Your task to perform on an android device: check the backup settings in the google photos Image 0: 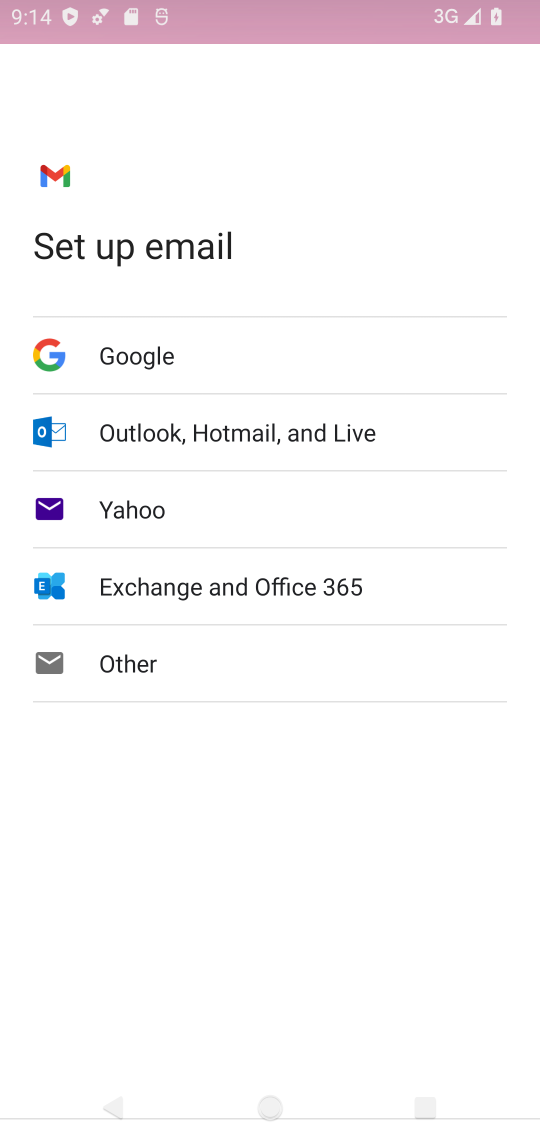
Step 0: press home button
Your task to perform on an android device: check the backup settings in the google photos Image 1: 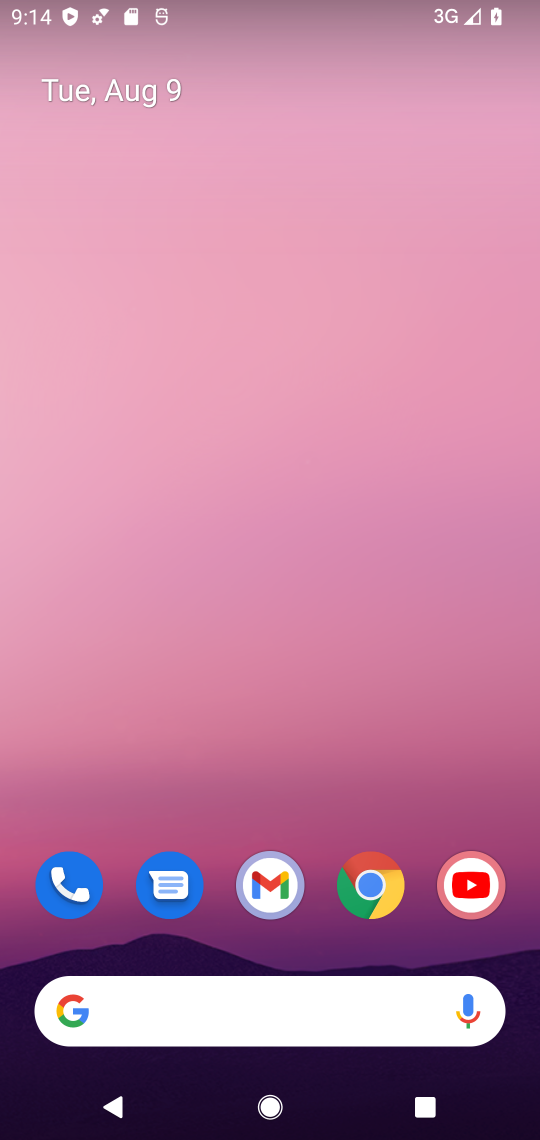
Step 1: drag from (310, 829) to (297, 60)
Your task to perform on an android device: check the backup settings in the google photos Image 2: 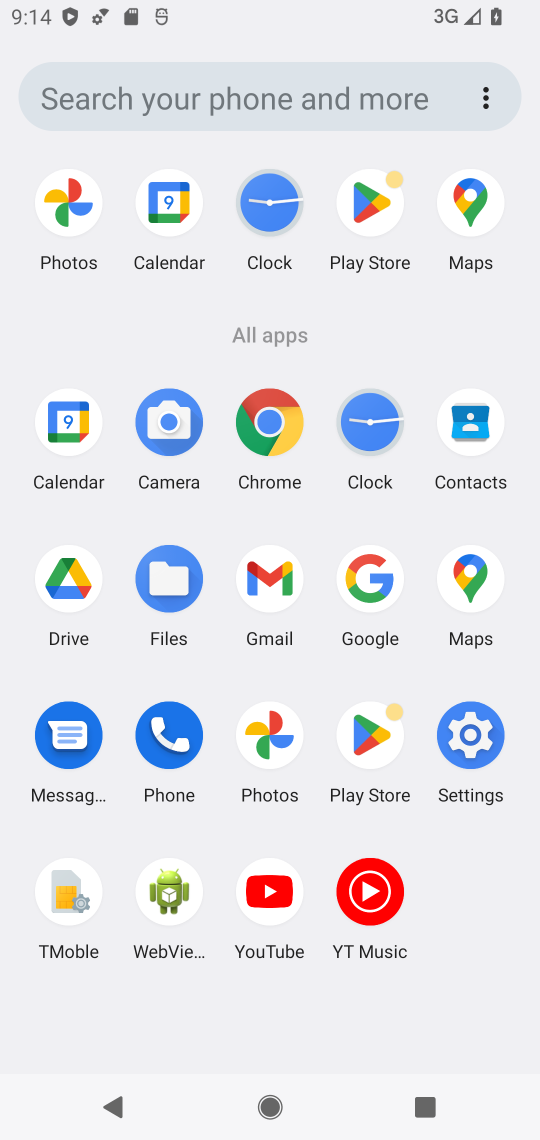
Step 2: click (75, 185)
Your task to perform on an android device: check the backup settings in the google photos Image 3: 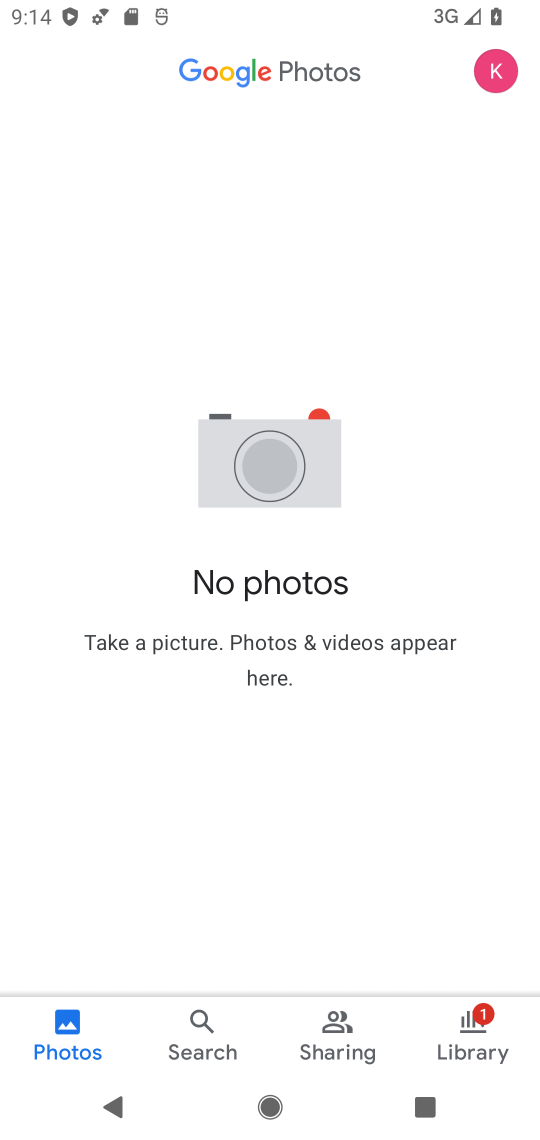
Step 3: click (496, 70)
Your task to perform on an android device: check the backup settings in the google photos Image 4: 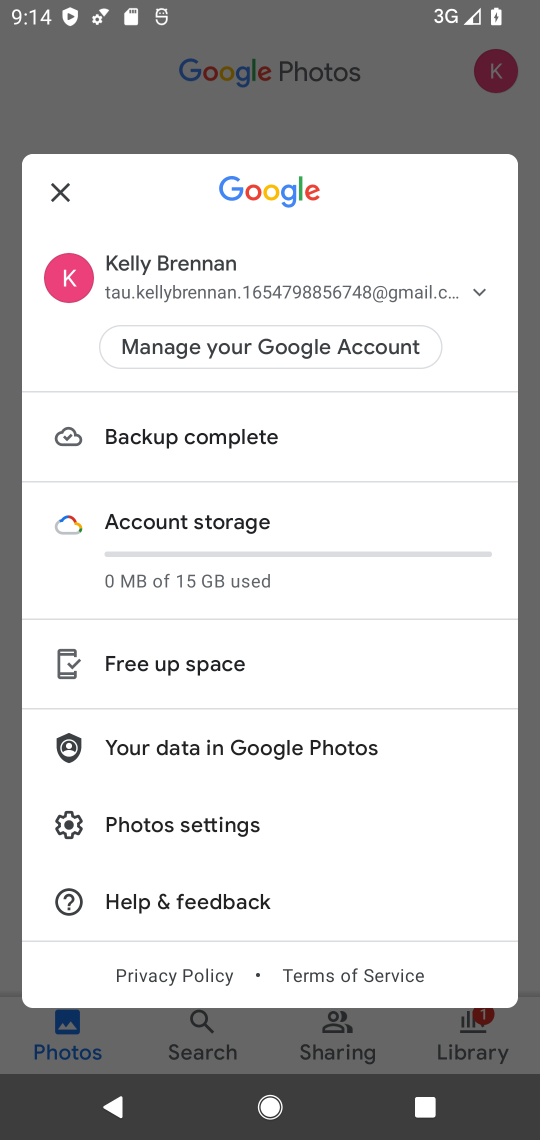
Step 4: click (246, 439)
Your task to perform on an android device: check the backup settings in the google photos Image 5: 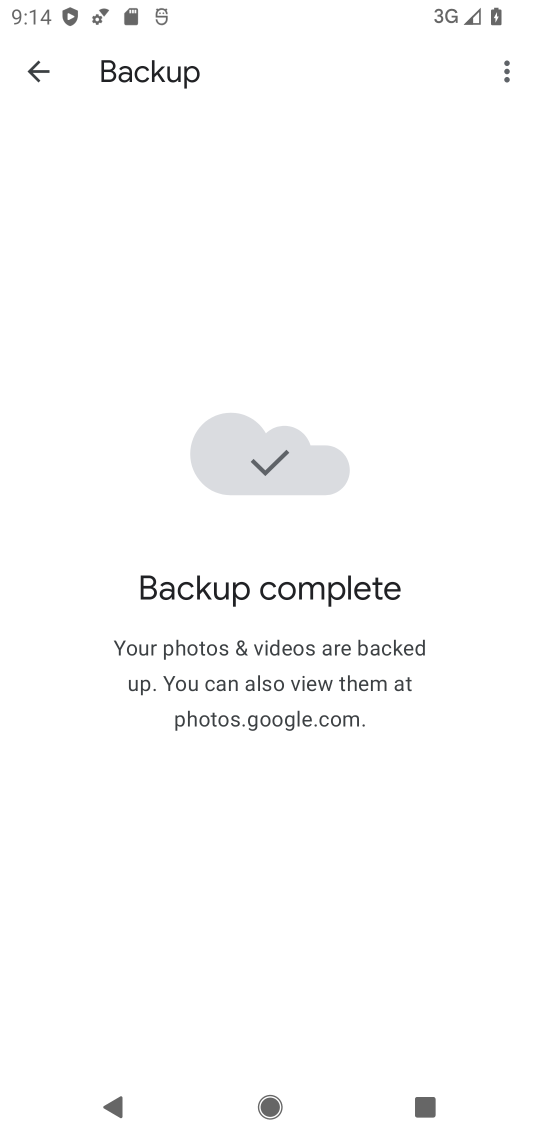
Step 5: click (513, 61)
Your task to perform on an android device: check the backup settings in the google photos Image 6: 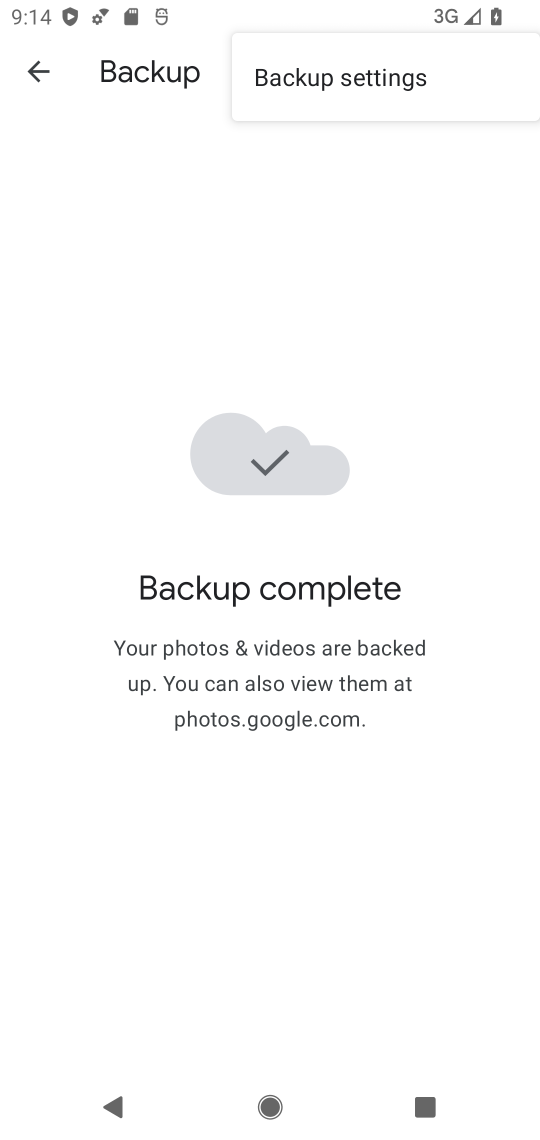
Step 6: click (315, 87)
Your task to perform on an android device: check the backup settings in the google photos Image 7: 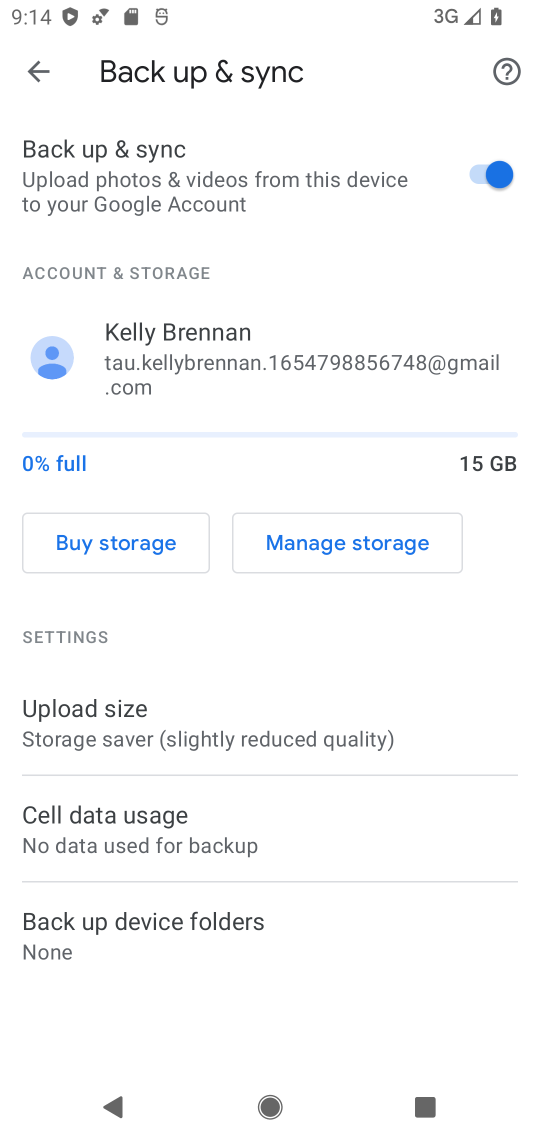
Step 7: task complete